Your task to perform on an android device: open app "Truecaller" (install if not already installed) Image 0: 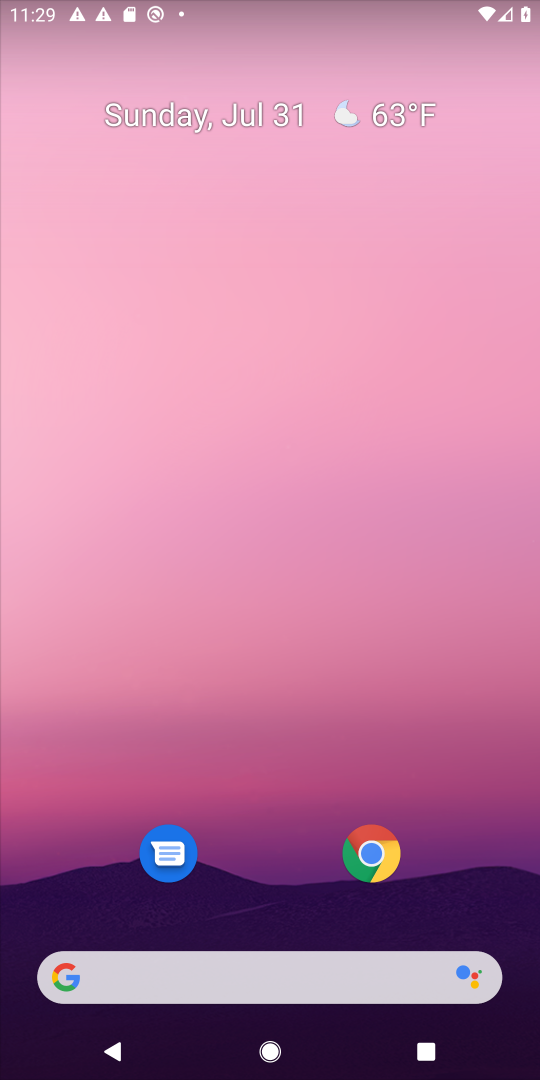
Step 0: drag from (306, 921) to (287, 83)
Your task to perform on an android device: open app "Truecaller" (install if not already installed) Image 1: 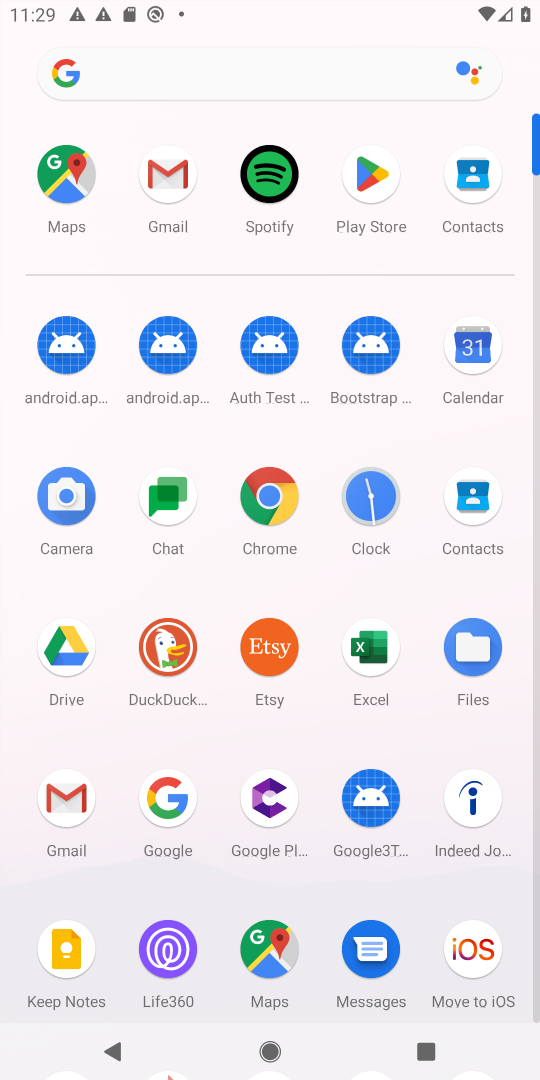
Step 1: click (374, 183)
Your task to perform on an android device: open app "Truecaller" (install if not already installed) Image 2: 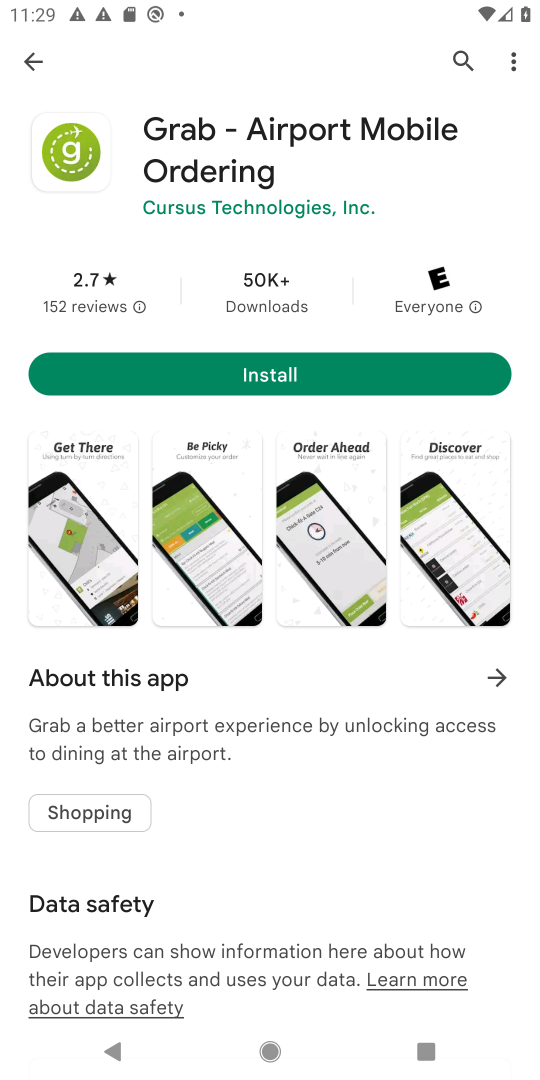
Step 2: click (454, 51)
Your task to perform on an android device: open app "Truecaller" (install if not already installed) Image 3: 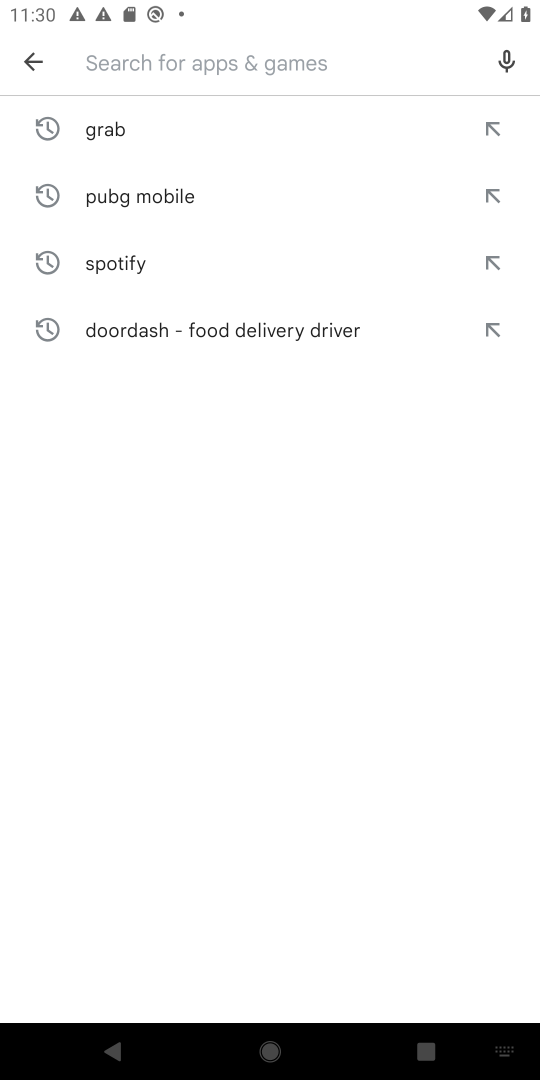
Step 3: type "Truecaller"
Your task to perform on an android device: open app "Truecaller" (install if not already installed) Image 4: 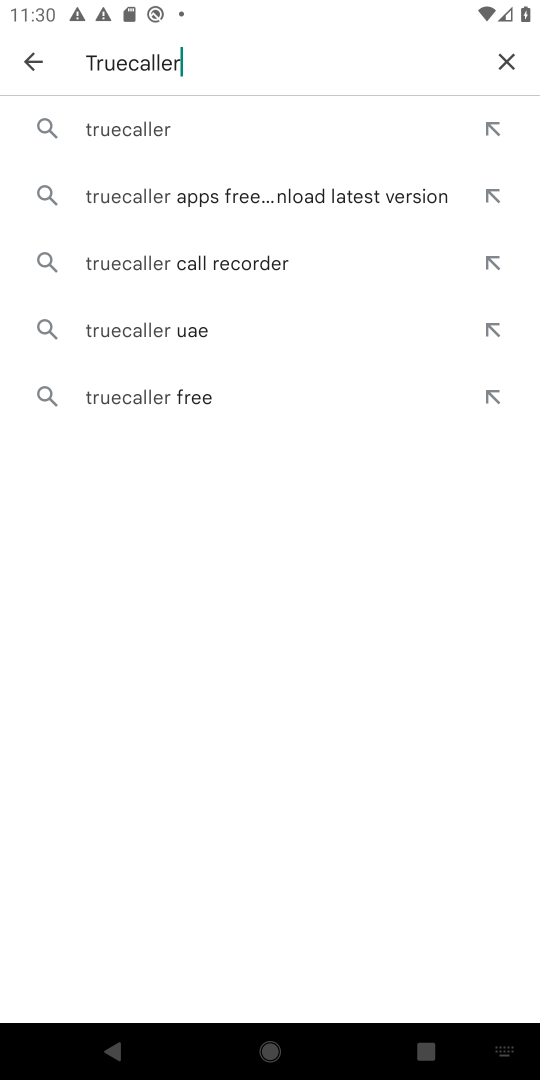
Step 4: click (128, 128)
Your task to perform on an android device: open app "Truecaller" (install if not already installed) Image 5: 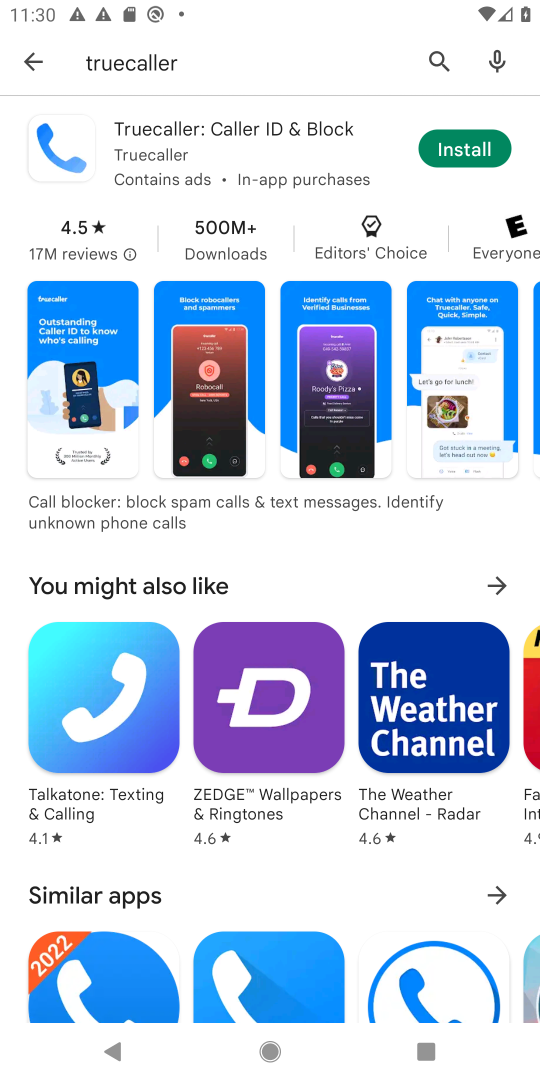
Step 5: click (483, 149)
Your task to perform on an android device: open app "Truecaller" (install if not already installed) Image 6: 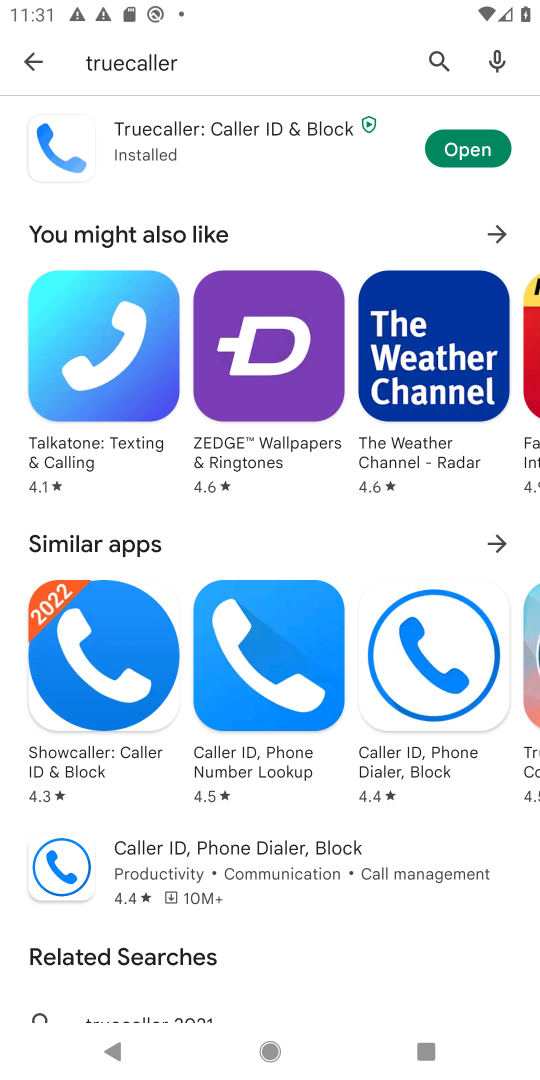
Step 6: task complete